Your task to perform on an android device: Do I have any events today? Image 0: 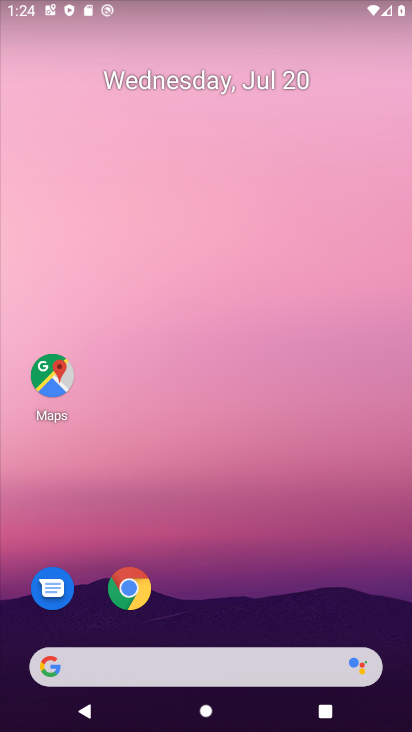
Step 0: drag from (368, 613) to (234, 9)
Your task to perform on an android device: Do I have any events today? Image 1: 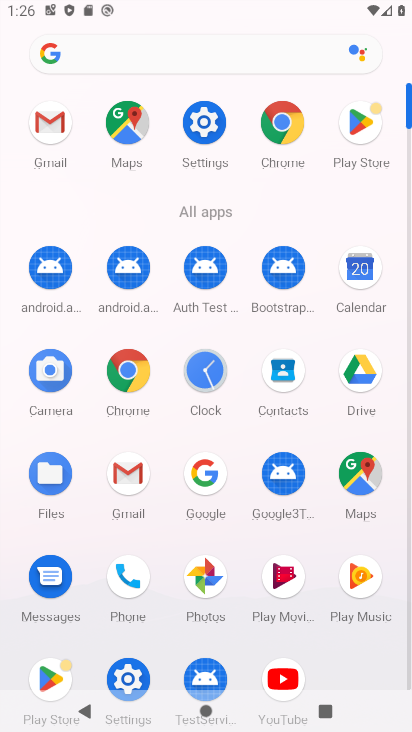
Step 1: click (367, 270)
Your task to perform on an android device: Do I have any events today? Image 2: 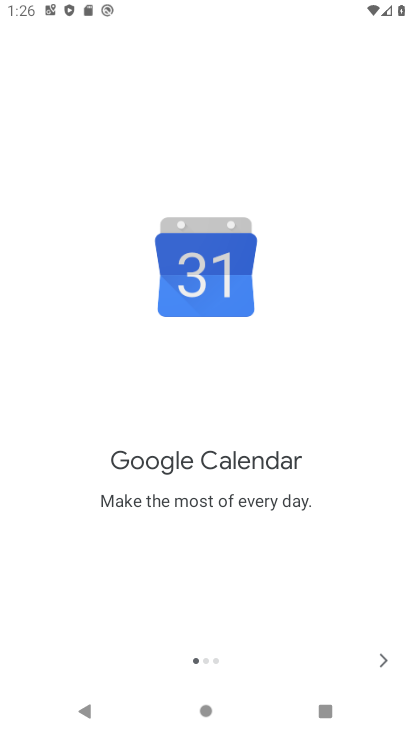
Step 2: click (377, 658)
Your task to perform on an android device: Do I have any events today? Image 3: 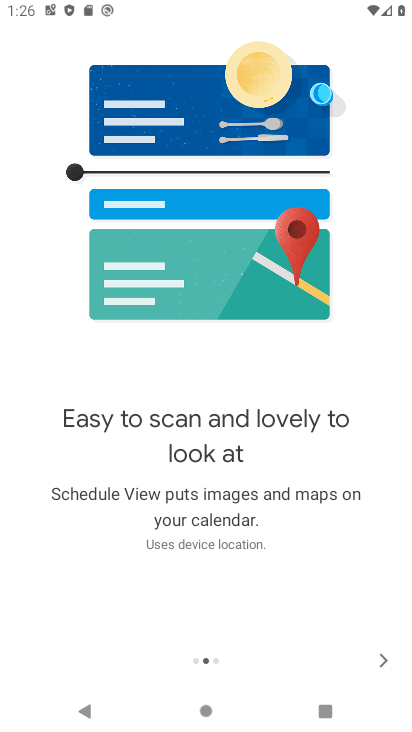
Step 3: click (377, 658)
Your task to perform on an android device: Do I have any events today? Image 4: 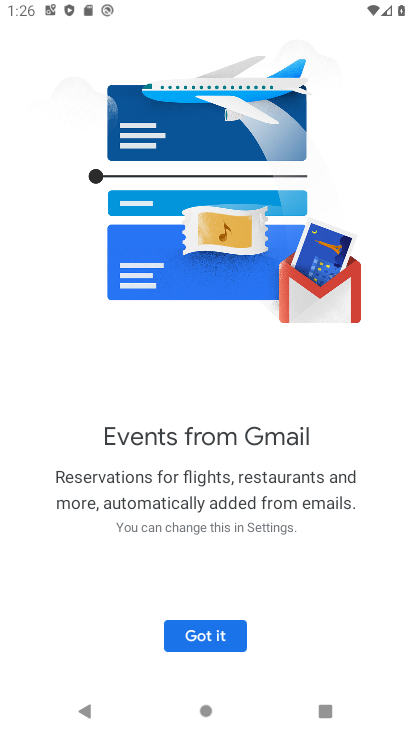
Step 4: click (232, 635)
Your task to perform on an android device: Do I have any events today? Image 5: 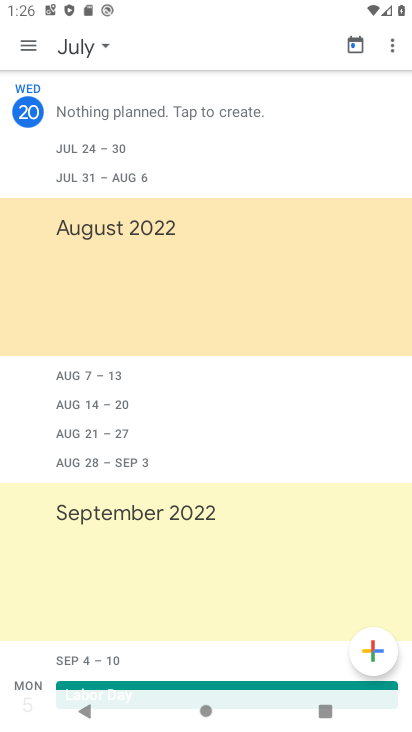
Step 5: task complete